Your task to perform on an android device: toggle improve location accuracy Image 0: 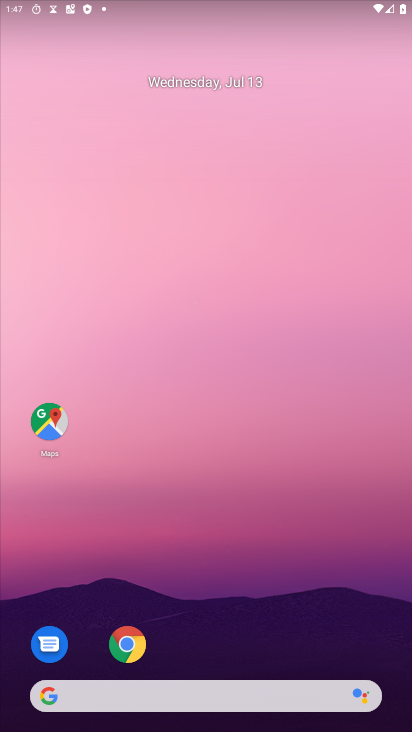
Step 0: press home button
Your task to perform on an android device: toggle improve location accuracy Image 1: 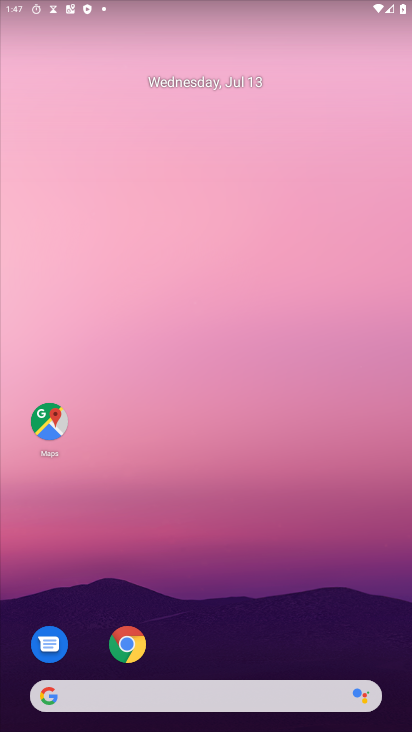
Step 1: drag from (243, 613) to (242, 81)
Your task to perform on an android device: toggle improve location accuracy Image 2: 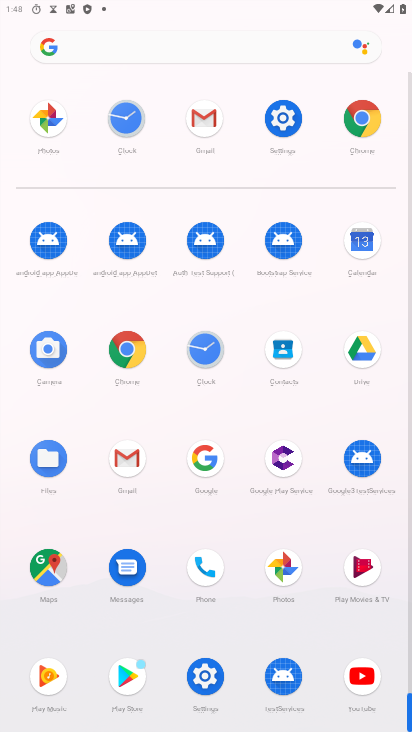
Step 2: click (276, 107)
Your task to perform on an android device: toggle improve location accuracy Image 3: 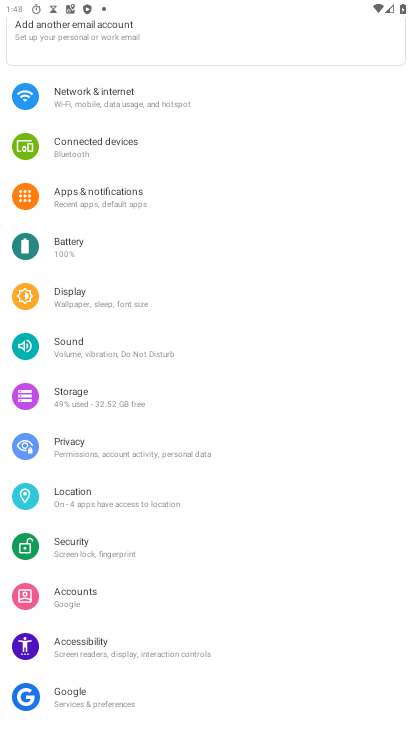
Step 3: click (115, 493)
Your task to perform on an android device: toggle improve location accuracy Image 4: 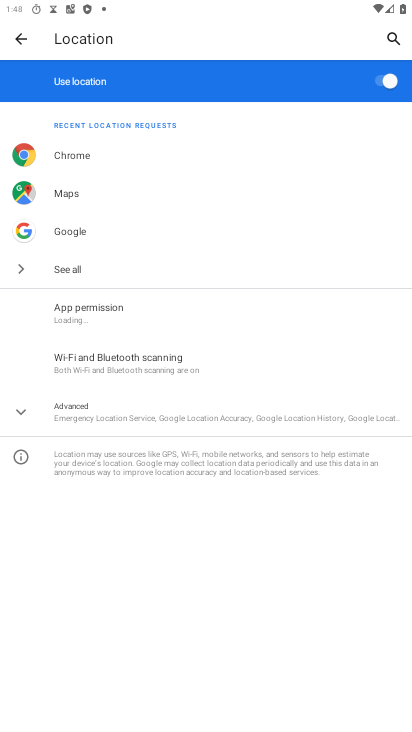
Step 4: click (25, 412)
Your task to perform on an android device: toggle improve location accuracy Image 5: 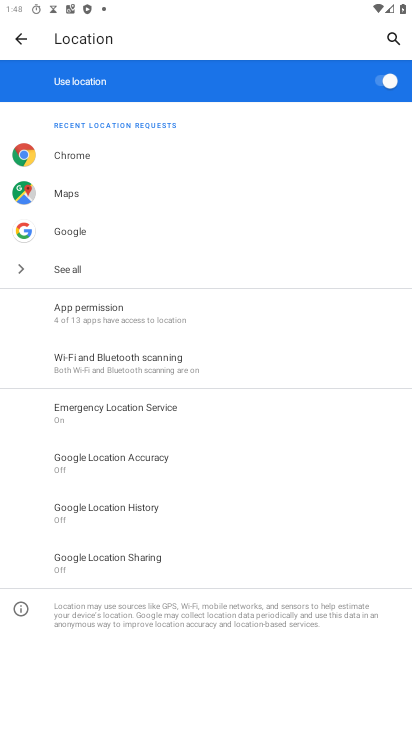
Step 5: click (121, 455)
Your task to perform on an android device: toggle improve location accuracy Image 6: 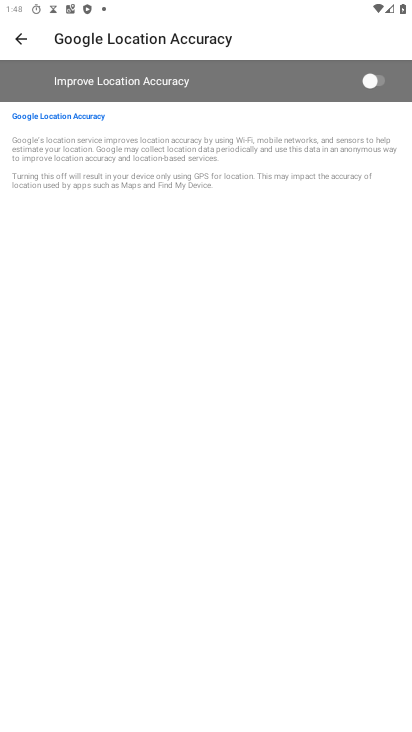
Step 6: click (369, 80)
Your task to perform on an android device: toggle improve location accuracy Image 7: 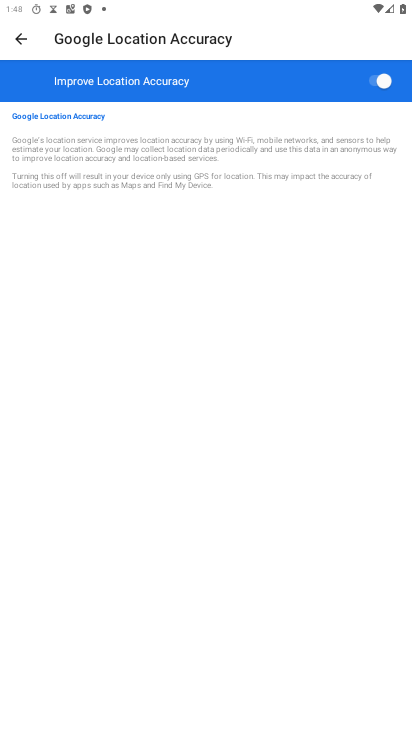
Step 7: task complete